Your task to perform on an android device: find photos in the google photos app Image 0: 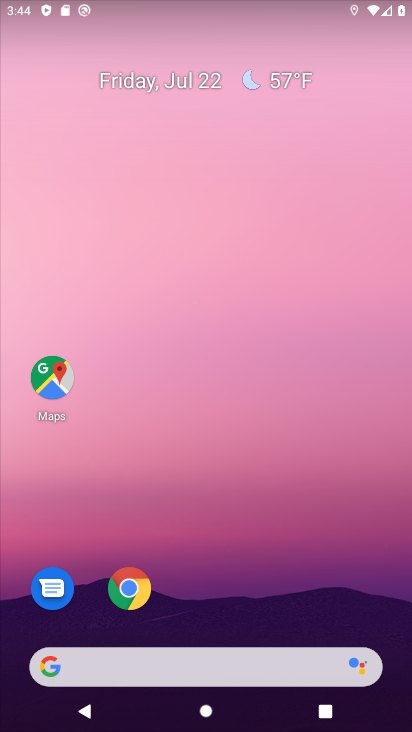
Step 0: drag from (213, 646) to (178, 93)
Your task to perform on an android device: find photos in the google photos app Image 1: 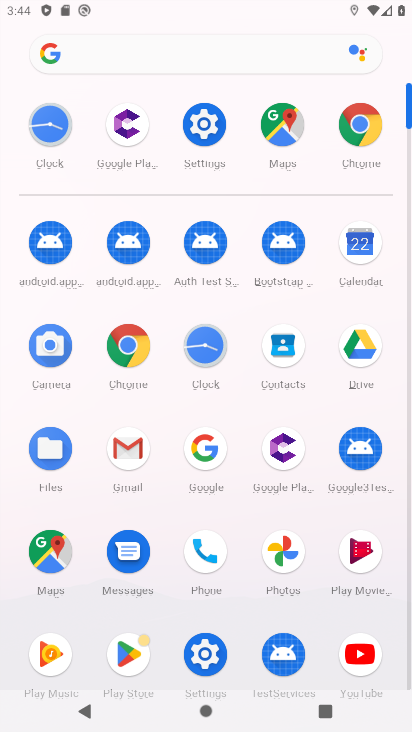
Step 1: click (267, 557)
Your task to perform on an android device: find photos in the google photos app Image 2: 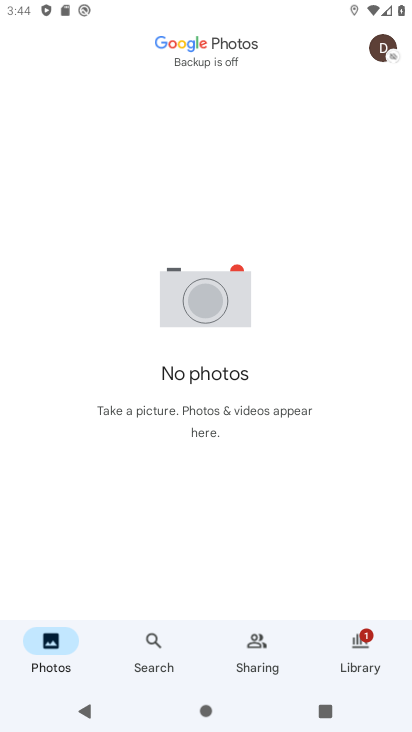
Step 2: task complete